Your task to perform on an android device: Open ESPN.com Image 0: 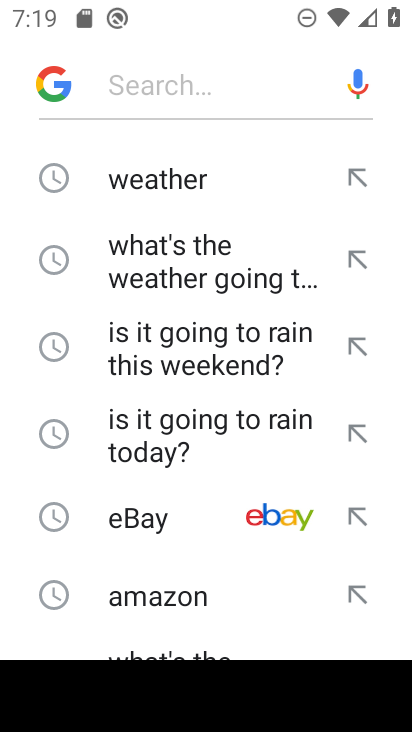
Step 0: type "espn.com"
Your task to perform on an android device: Open ESPN.com Image 1: 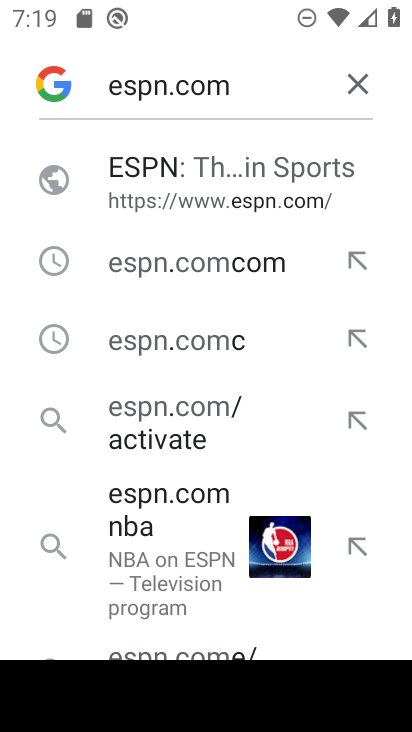
Step 1: click (174, 162)
Your task to perform on an android device: Open ESPN.com Image 2: 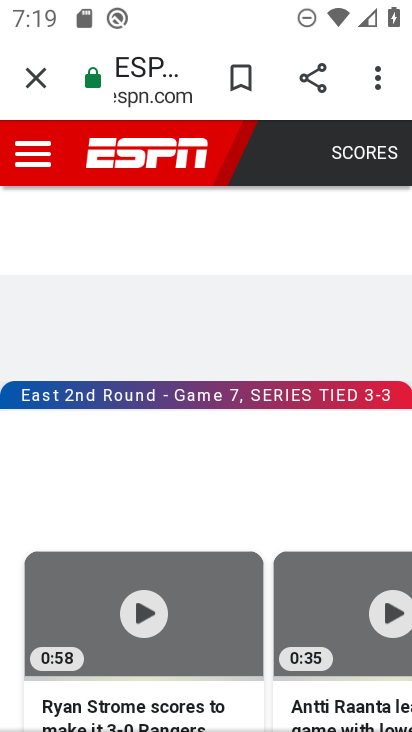
Step 2: task complete